Your task to perform on an android device: turn off sleep mode Image 0: 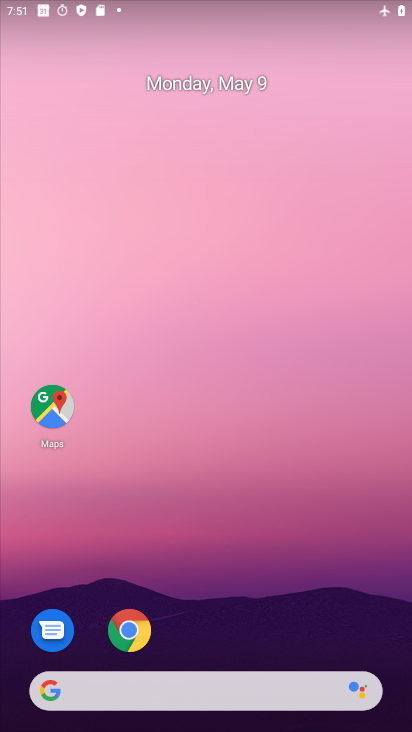
Step 0: drag from (316, 624) to (294, 207)
Your task to perform on an android device: turn off sleep mode Image 1: 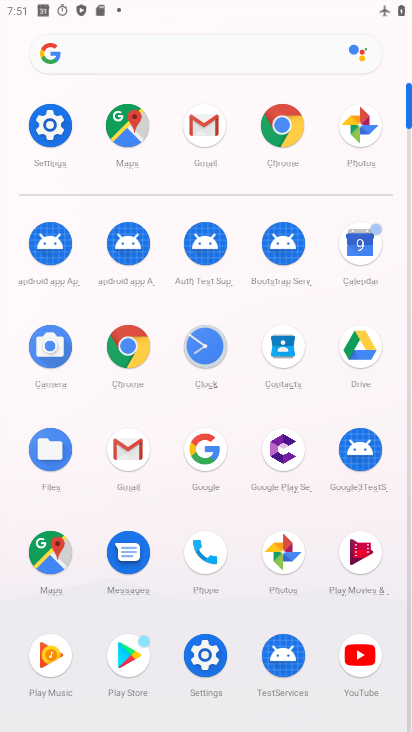
Step 1: click (44, 133)
Your task to perform on an android device: turn off sleep mode Image 2: 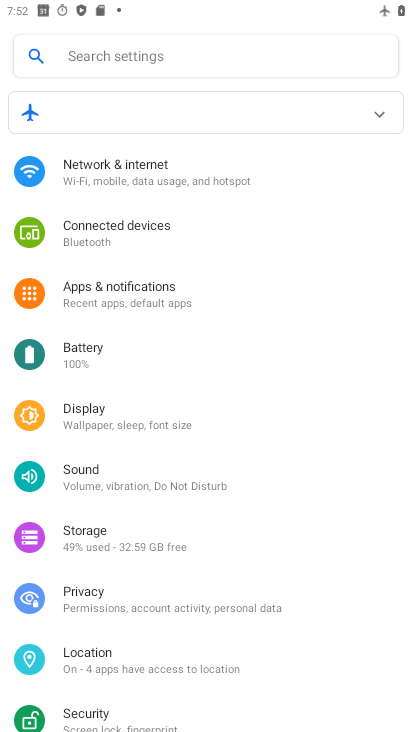
Step 2: click (114, 67)
Your task to perform on an android device: turn off sleep mode Image 3: 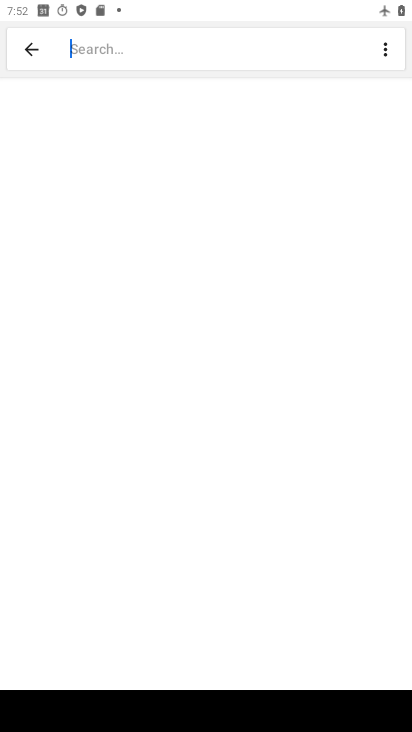
Step 3: type "sleep mode"
Your task to perform on an android device: turn off sleep mode Image 4: 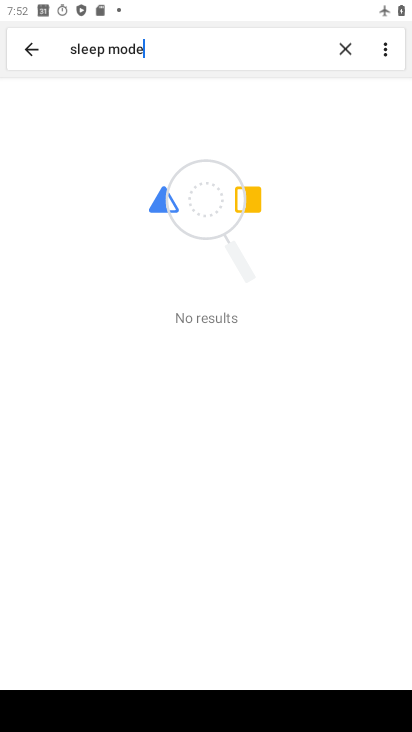
Step 4: task complete